Your task to perform on an android device: Go to Maps Image 0: 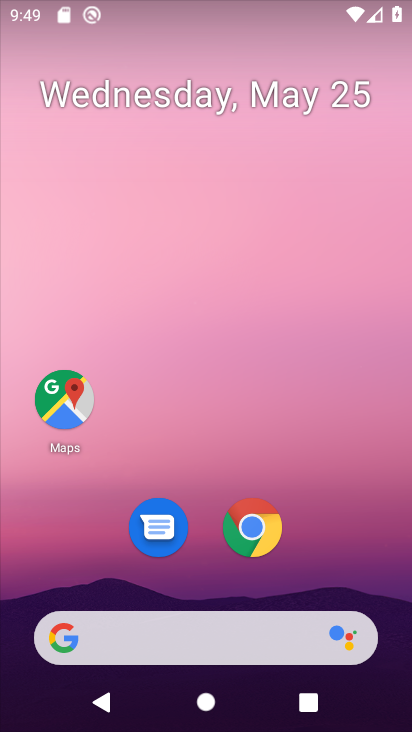
Step 0: click (59, 387)
Your task to perform on an android device: Go to Maps Image 1: 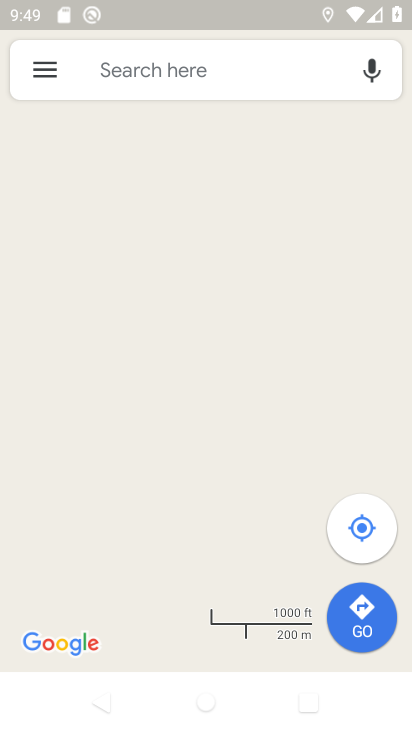
Step 1: task complete